Your task to perform on an android device: What's the weather going to be this weekend? Image 0: 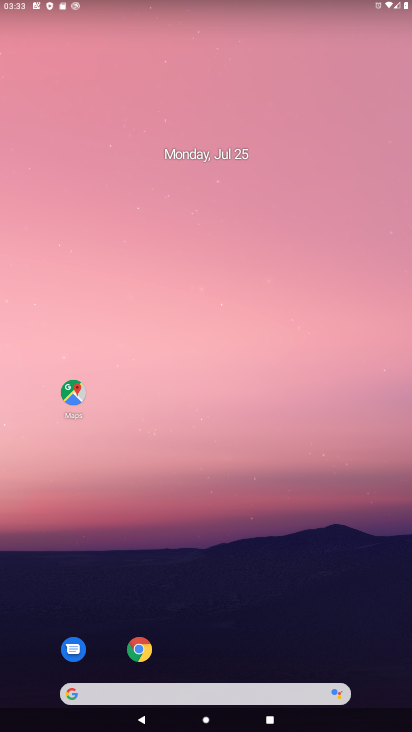
Step 0: drag from (6, 311) to (386, 345)
Your task to perform on an android device: What's the weather going to be this weekend? Image 1: 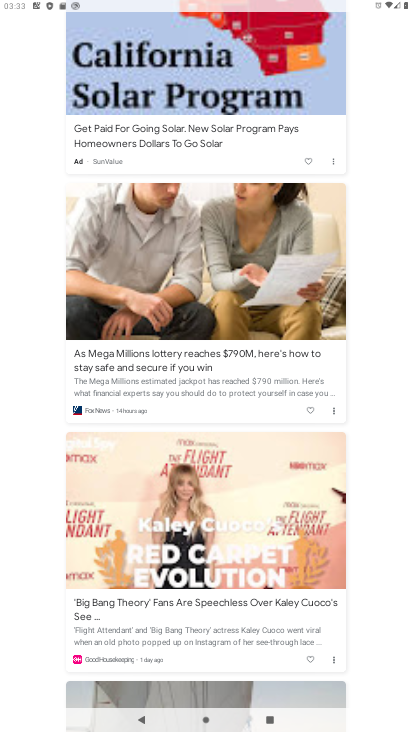
Step 1: drag from (186, 63) to (216, 441)
Your task to perform on an android device: What's the weather going to be this weekend? Image 2: 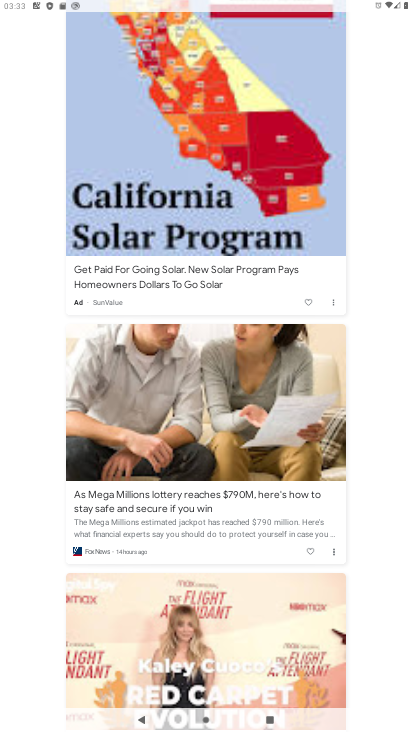
Step 2: drag from (266, 36) to (276, 380)
Your task to perform on an android device: What's the weather going to be this weekend? Image 3: 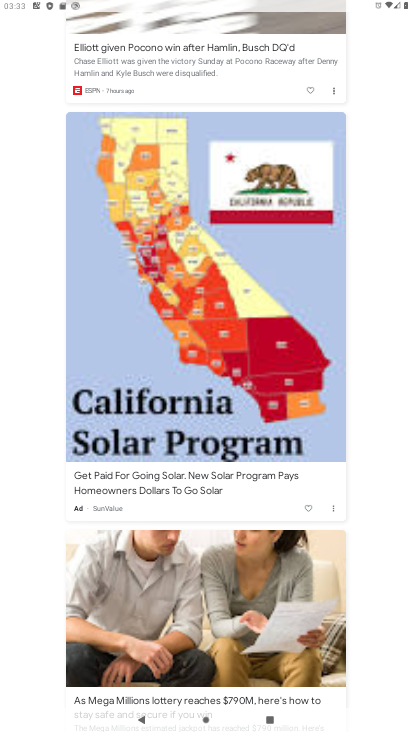
Step 3: drag from (212, 29) to (250, 527)
Your task to perform on an android device: What's the weather going to be this weekend? Image 4: 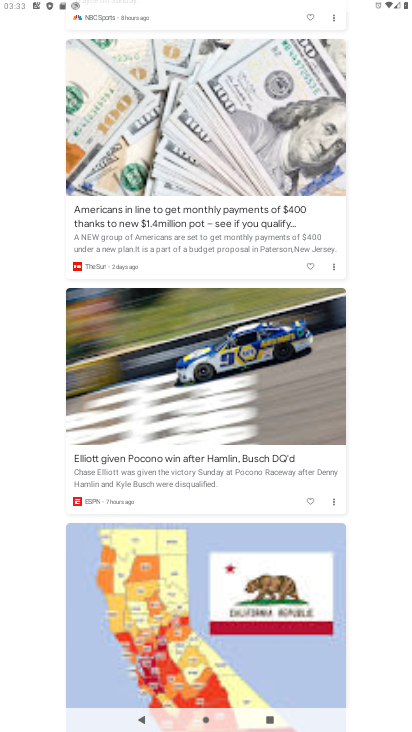
Step 4: drag from (235, 233) to (243, 534)
Your task to perform on an android device: What's the weather going to be this weekend? Image 5: 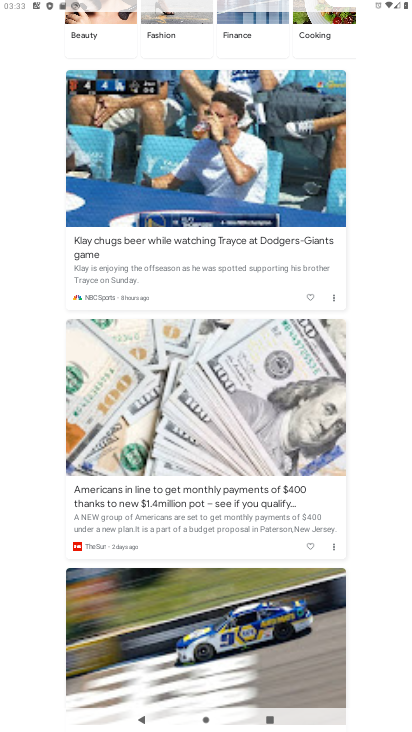
Step 5: drag from (211, 85) to (225, 575)
Your task to perform on an android device: What's the weather going to be this weekend? Image 6: 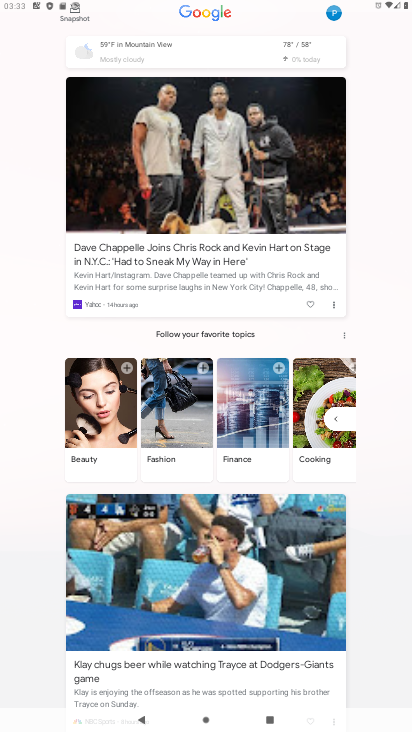
Step 6: click (294, 41)
Your task to perform on an android device: What's the weather going to be this weekend? Image 7: 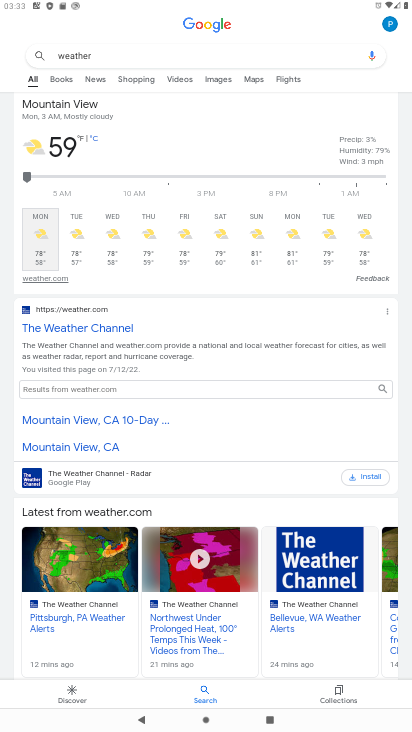
Step 7: task complete